Your task to perform on an android device: turn on notifications settings in the gmail app Image 0: 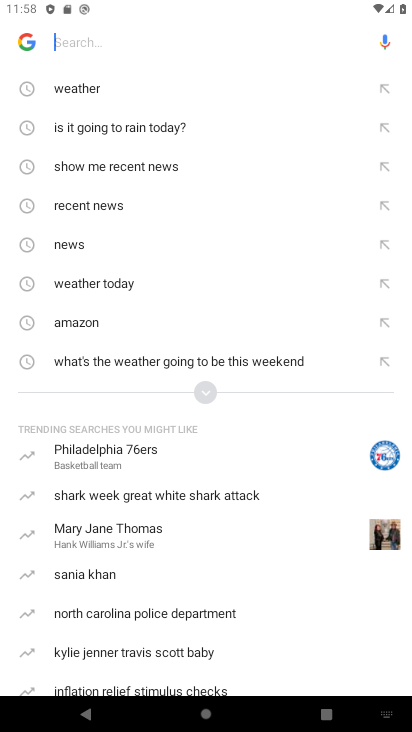
Step 0: press back button
Your task to perform on an android device: turn on notifications settings in the gmail app Image 1: 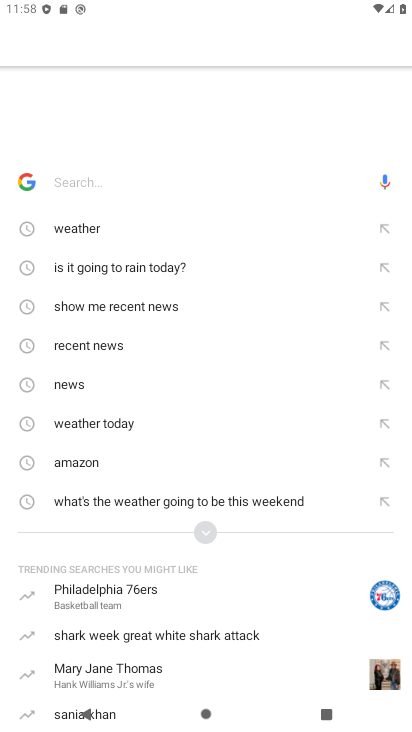
Step 1: press back button
Your task to perform on an android device: turn on notifications settings in the gmail app Image 2: 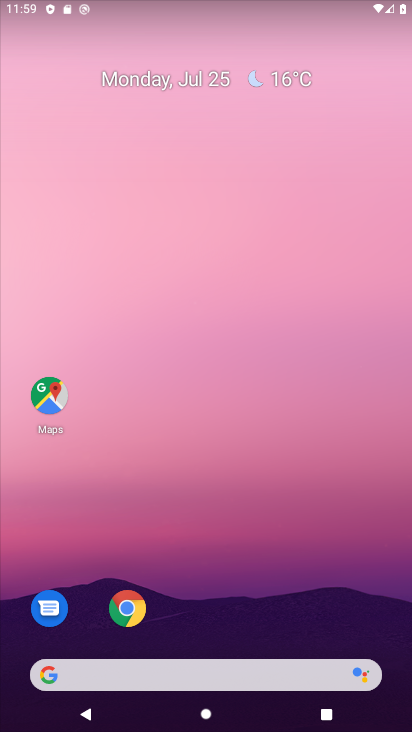
Step 2: drag from (219, 623) to (155, 35)
Your task to perform on an android device: turn on notifications settings in the gmail app Image 3: 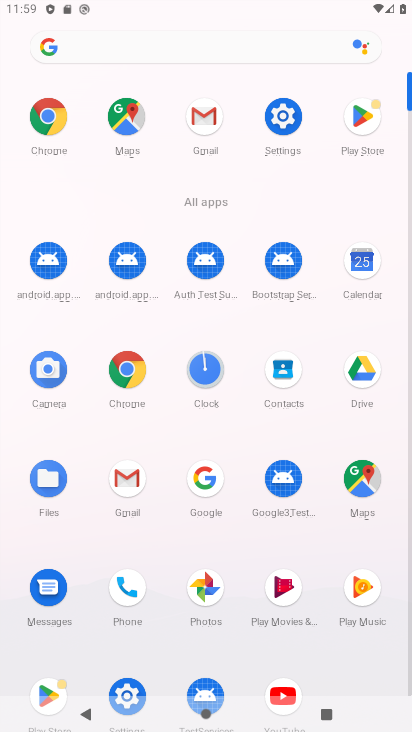
Step 3: click (185, 130)
Your task to perform on an android device: turn on notifications settings in the gmail app Image 4: 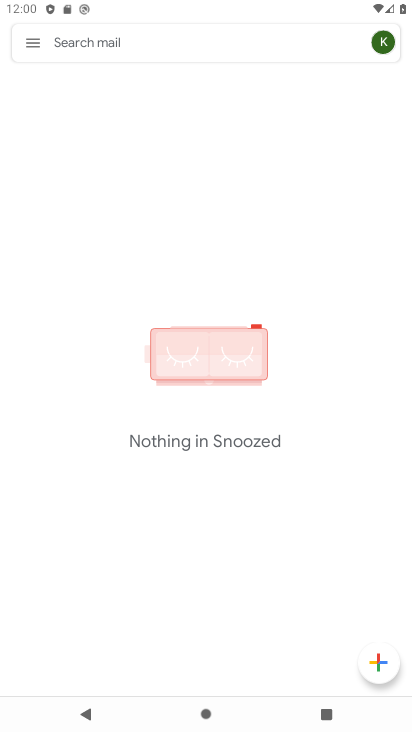
Step 4: task complete